Your task to perform on an android device: Go to Reddit.com Image 0: 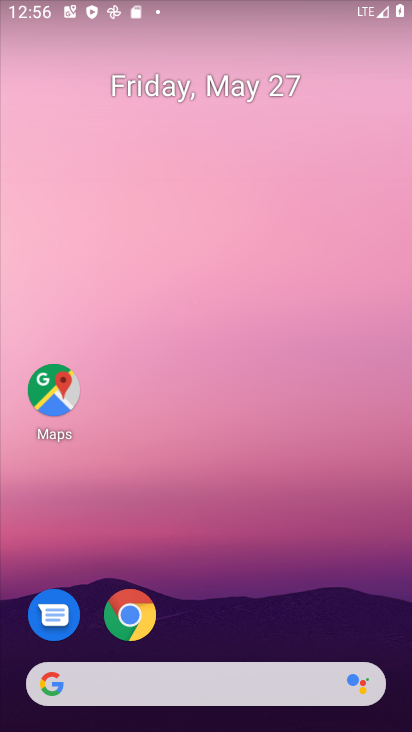
Step 0: drag from (278, 677) to (278, 2)
Your task to perform on an android device: Go to Reddit.com Image 1: 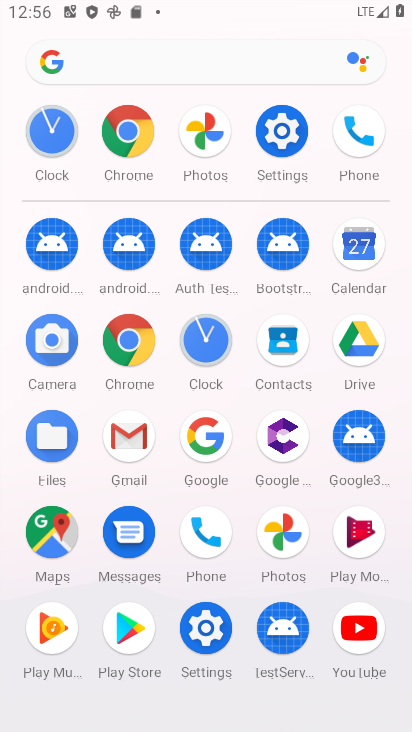
Step 1: click (133, 341)
Your task to perform on an android device: Go to Reddit.com Image 2: 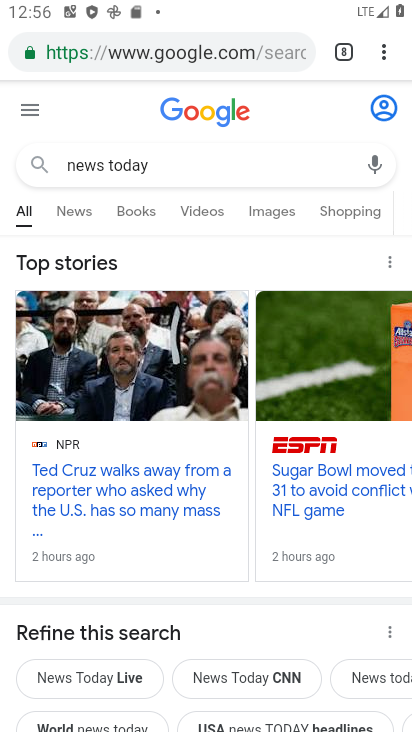
Step 2: click (394, 51)
Your task to perform on an android device: Go to Reddit.com Image 3: 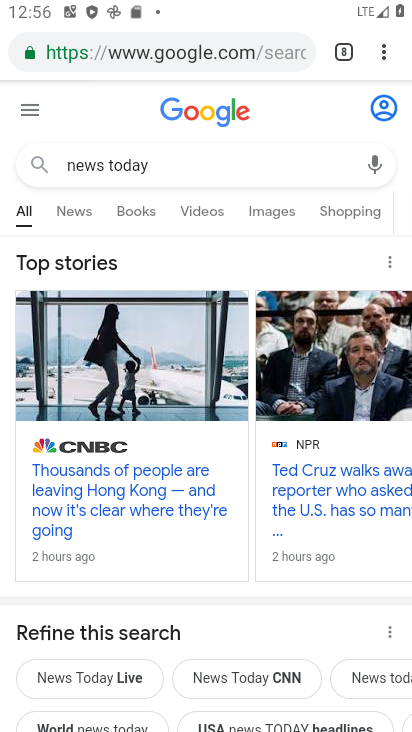
Step 3: click (207, 55)
Your task to perform on an android device: Go to Reddit.com Image 4: 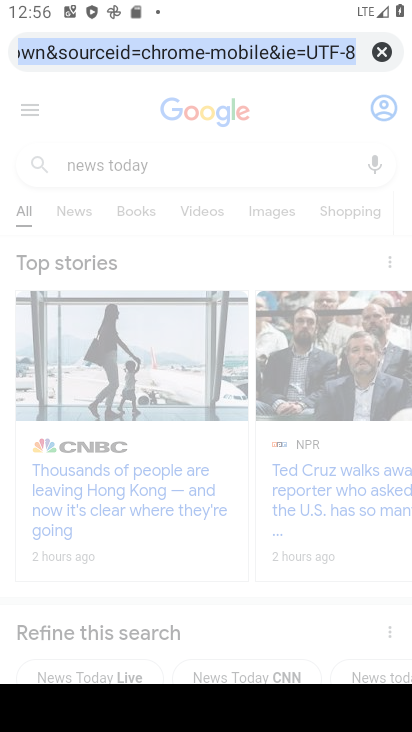
Step 4: click (379, 47)
Your task to perform on an android device: Go to Reddit.com Image 5: 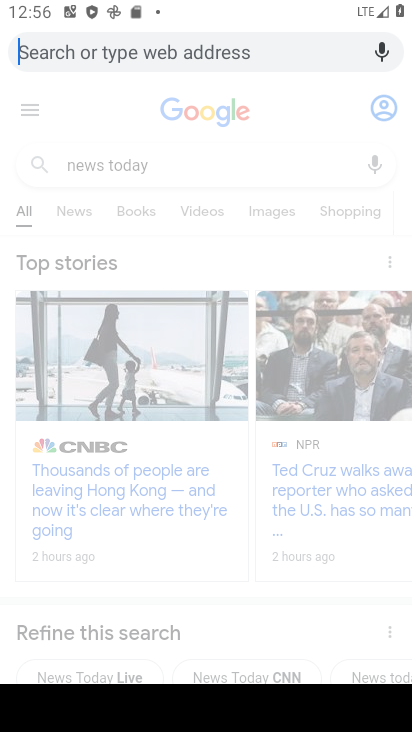
Step 5: type "reddit.com"
Your task to perform on an android device: Go to Reddit.com Image 6: 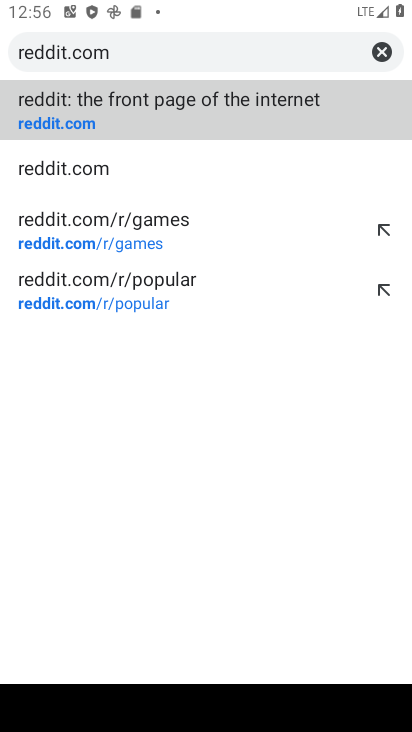
Step 6: click (82, 118)
Your task to perform on an android device: Go to Reddit.com Image 7: 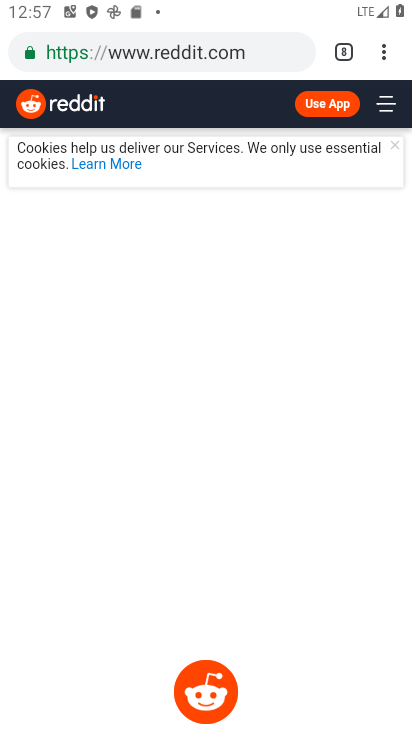
Step 7: task complete